Your task to perform on an android device: Open Google Maps Image 0: 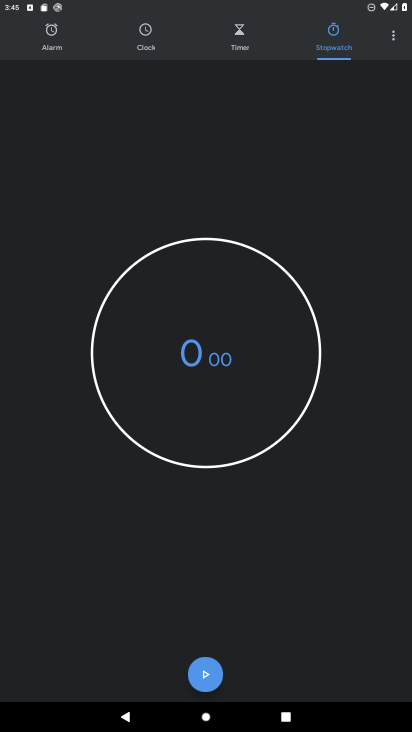
Step 0: press home button
Your task to perform on an android device: Open Google Maps Image 1: 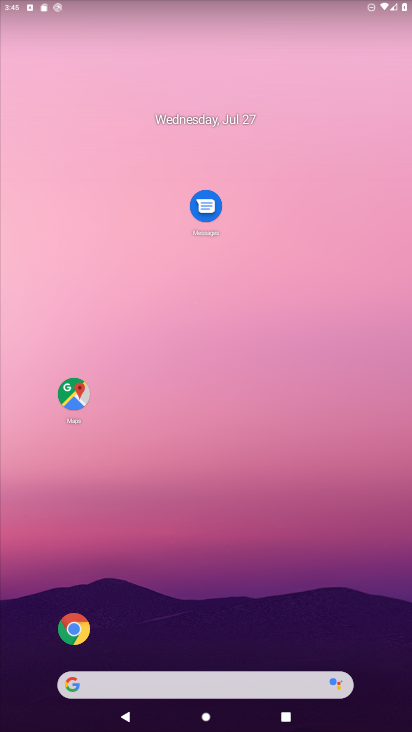
Step 1: click (72, 402)
Your task to perform on an android device: Open Google Maps Image 2: 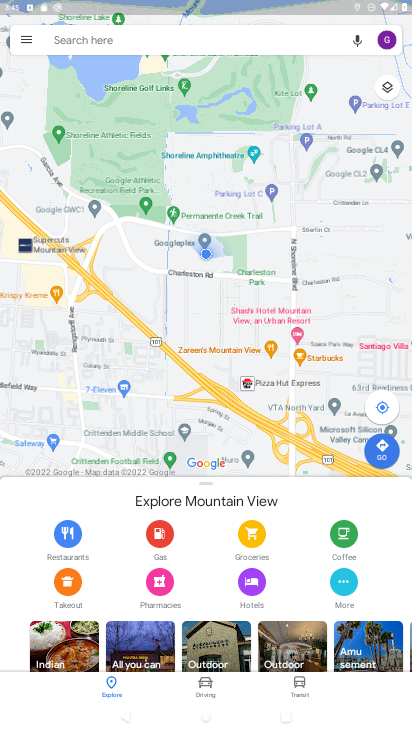
Step 2: task complete